Your task to perform on an android device: Open Chrome and go to the settings page Image 0: 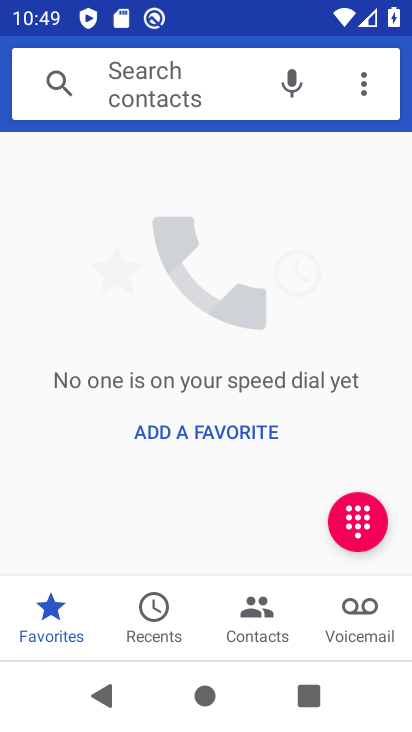
Step 0: press home button
Your task to perform on an android device: Open Chrome and go to the settings page Image 1: 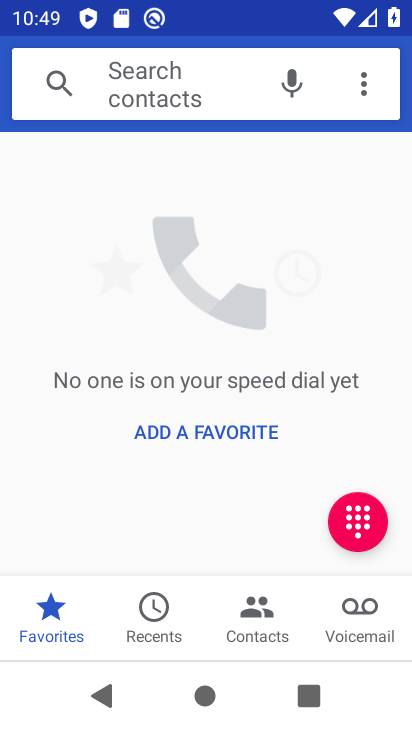
Step 1: press home button
Your task to perform on an android device: Open Chrome and go to the settings page Image 2: 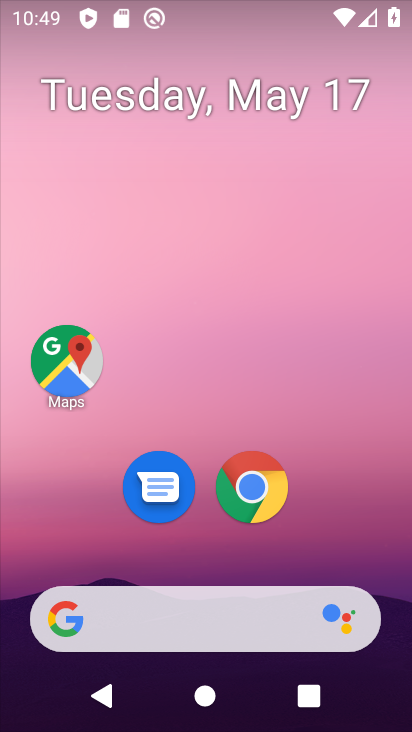
Step 2: click (253, 492)
Your task to perform on an android device: Open Chrome and go to the settings page Image 3: 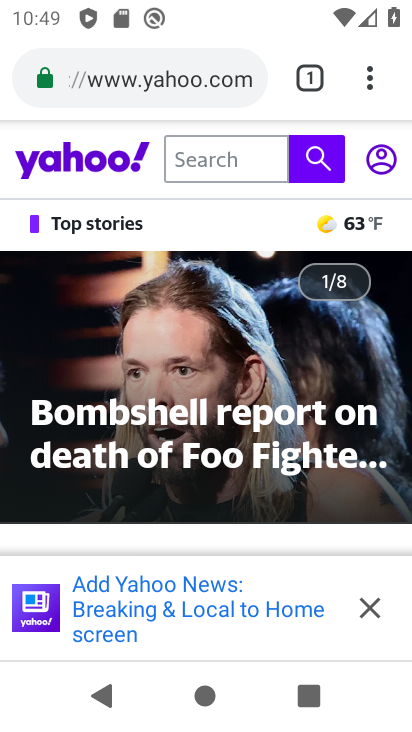
Step 3: task complete